Your task to perform on an android device: toggle priority inbox in the gmail app Image 0: 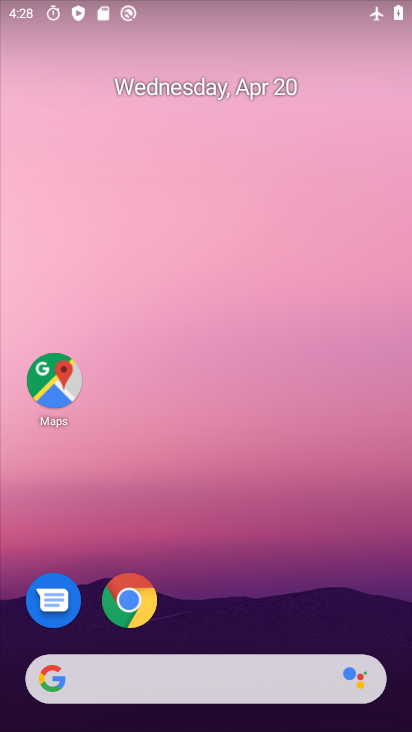
Step 0: drag from (243, 593) to (222, 179)
Your task to perform on an android device: toggle priority inbox in the gmail app Image 1: 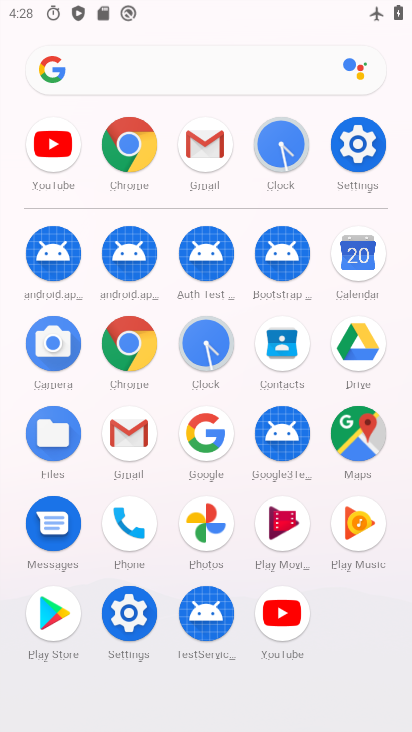
Step 1: click (129, 445)
Your task to perform on an android device: toggle priority inbox in the gmail app Image 2: 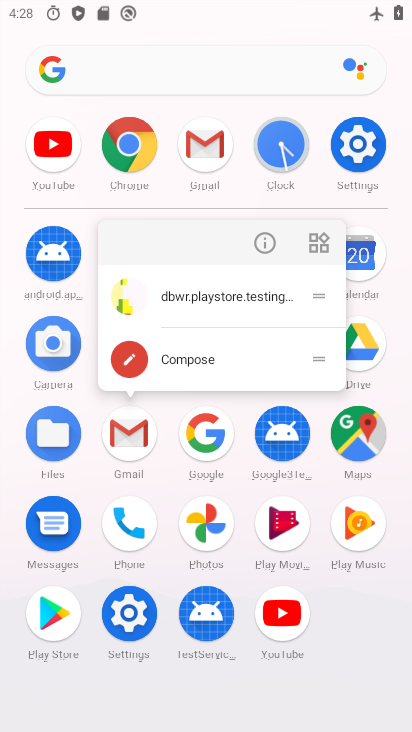
Step 2: click (131, 435)
Your task to perform on an android device: toggle priority inbox in the gmail app Image 3: 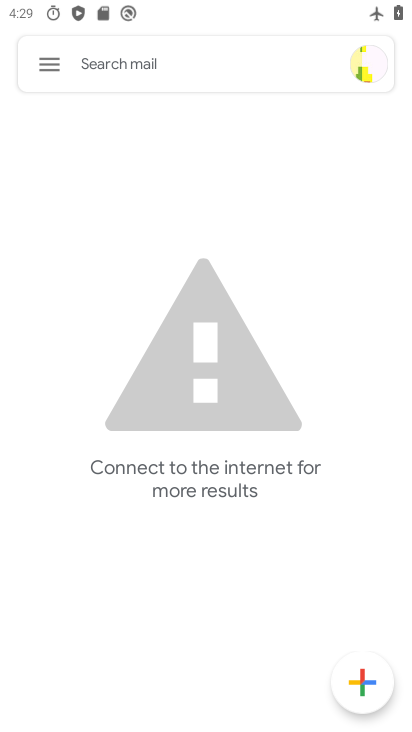
Step 3: task complete